Your task to perform on an android device: Go to privacy settings Image 0: 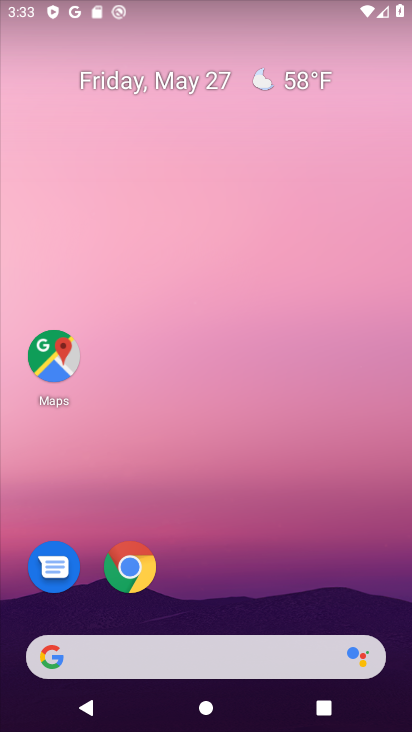
Step 0: drag from (214, 613) to (216, 66)
Your task to perform on an android device: Go to privacy settings Image 1: 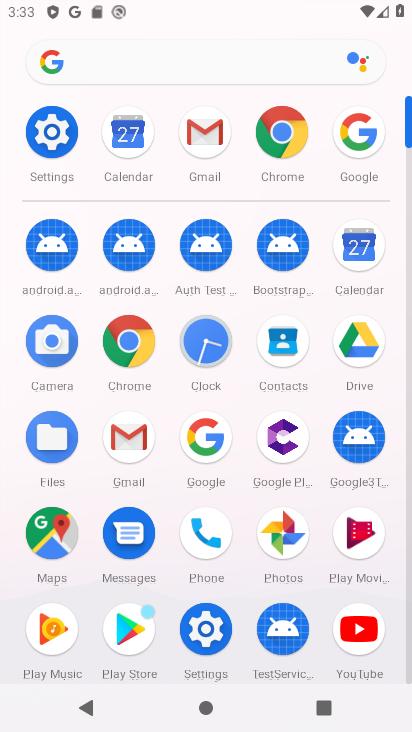
Step 1: click (53, 130)
Your task to perform on an android device: Go to privacy settings Image 2: 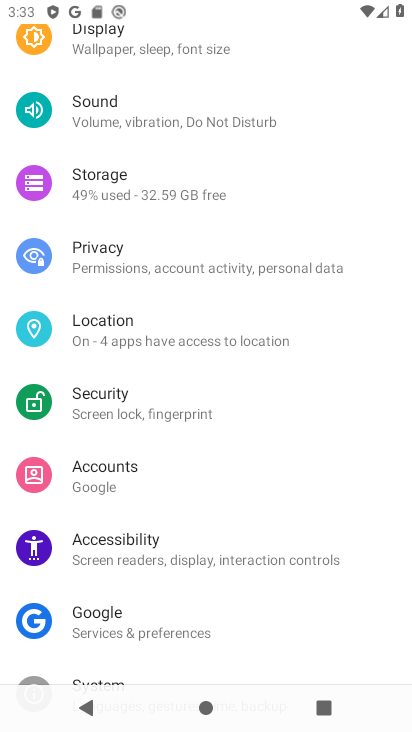
Step 2: click (133, 249)
Your task to perform on an android device: Go to privacy settings Image 3: 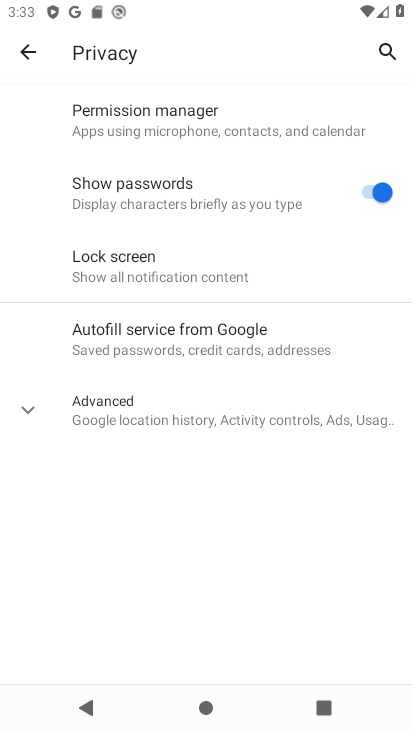
Step 3: click (29, 404)
Your task to perform on an android device: Go to privacy settings Image 4: 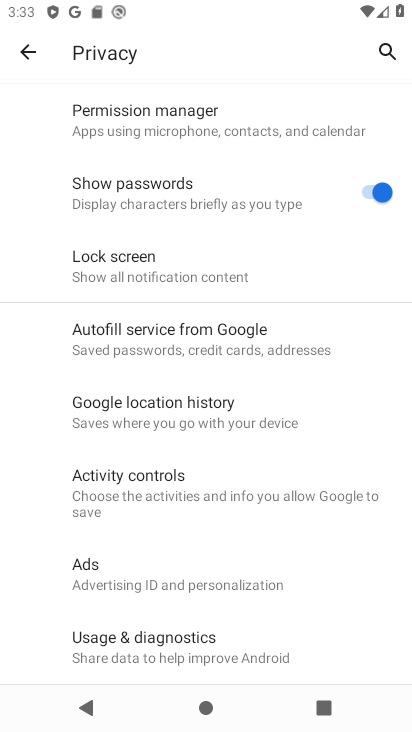
Step 4: task complete